Your task to perform on an android device: show emergency info Image 0: 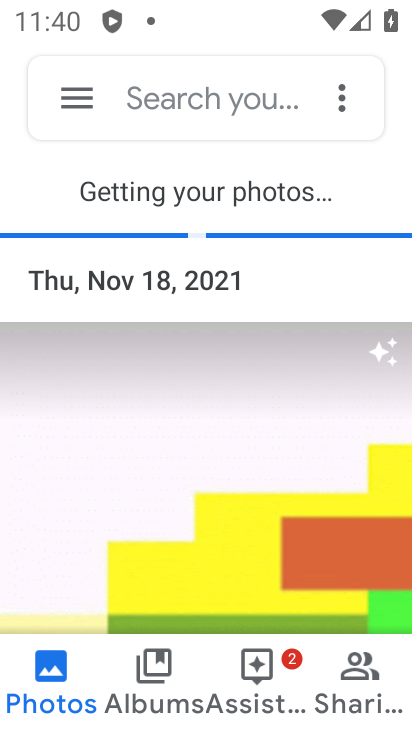
Step 0: press home button
Your task to perform on an android device: show emergency info Image 1: 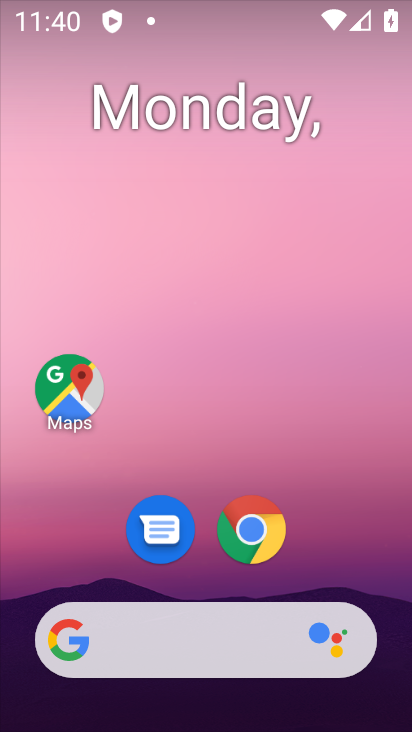
Step 1: drag from (110, 608) to (249, 44)
Your task to perform on an android device: show emergency info Image 2: 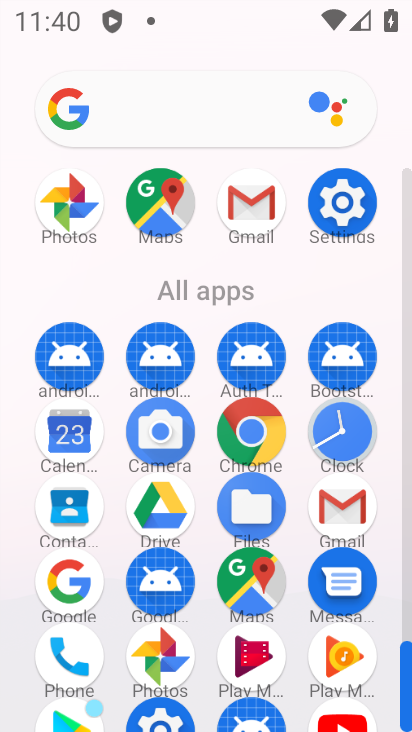
Step 2: drag from (158, 611) to (230, 293)
Your task to perform on an android device: show emergency info Image 3: 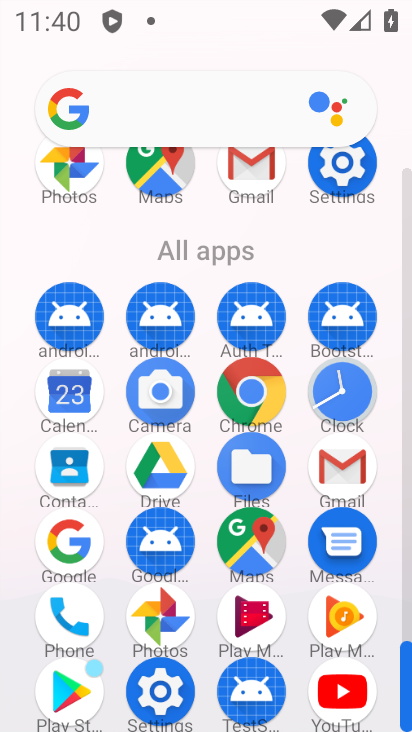
Step 3: click (157, 707)
Your task to perform on an android device: show emergency info Image 4: 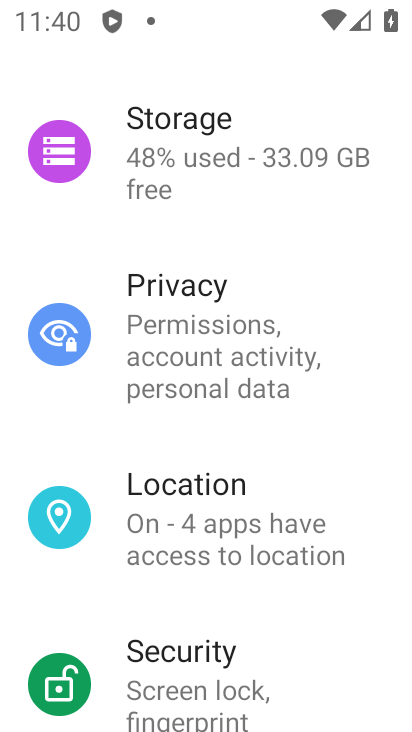
Step 4: drag from (191, 679) to (315, 184)
Your task to perform on an android device: show emergency info Image 5: 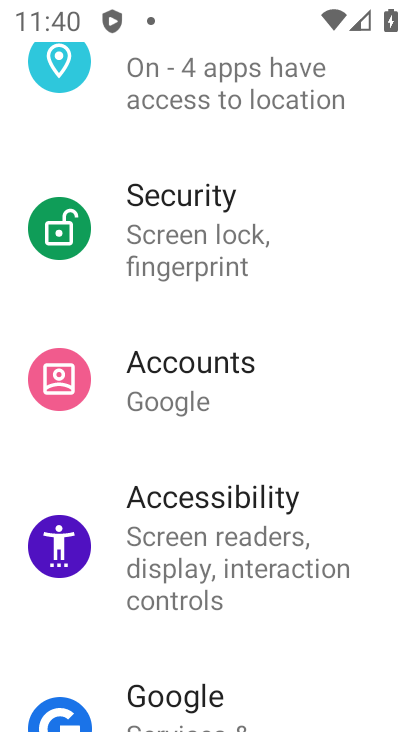
Step 5: drag from (205, 695) to (347, 223)
Your task to perform on an android device: show emergency info Image 6: 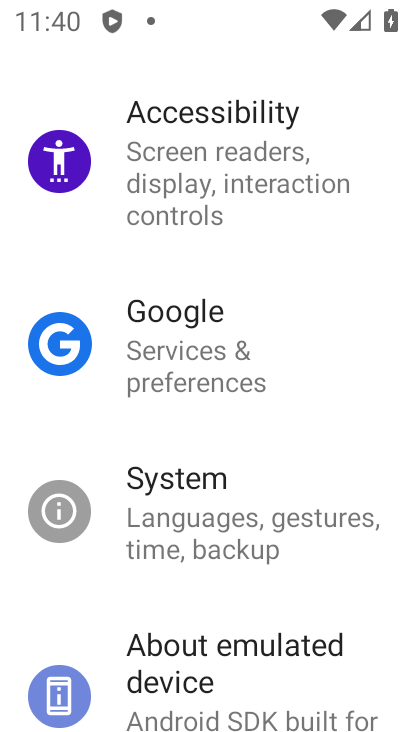
Step 6: click (196, 653)
Your task to perform on an android device: show emergency info Image 7: 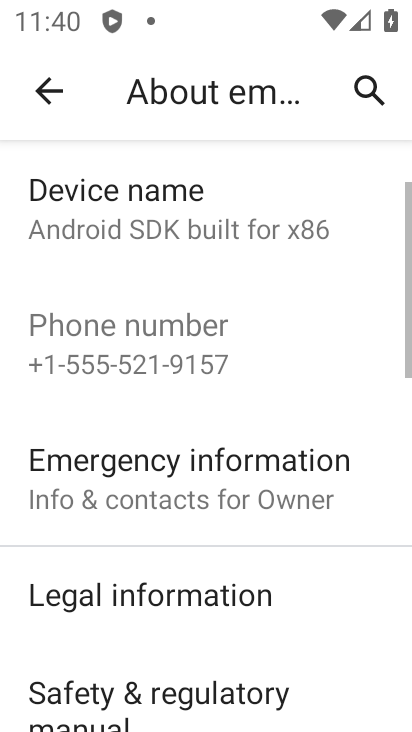
Step 7: click (302, 524)
Your task to perform on an android device: show emergency info Image 8: 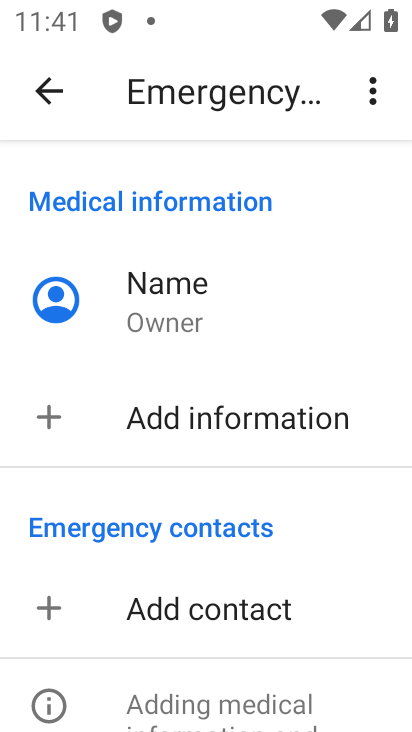
Step 8: task complete